Your task to perform on an android device: What's on my calendar tomorrow? Image 0: 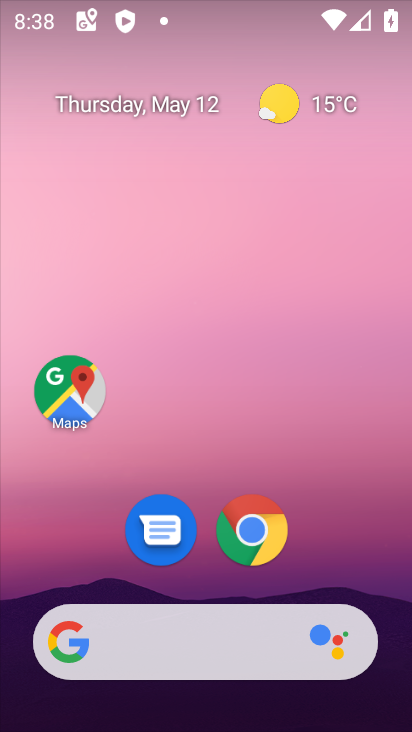
Step 0: drag from (213, 709) to (90, 10)
Your task to perform on an android device: What's on my calendar tomorrow? Image 1: 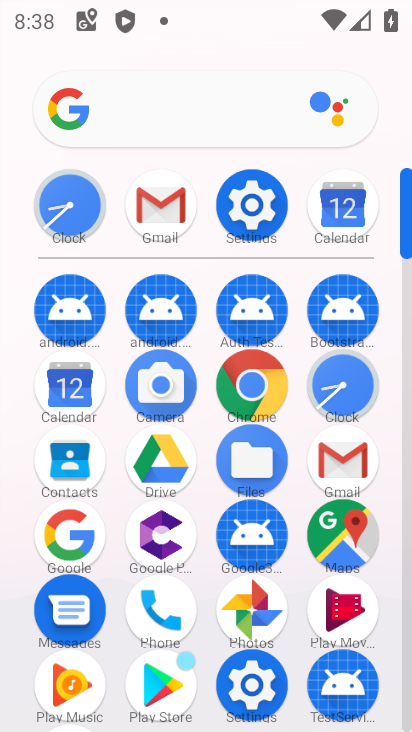
Step 1: click (67, 385)
Your task to perform on an android device: What's on my calendar tomorrow? Image 2: 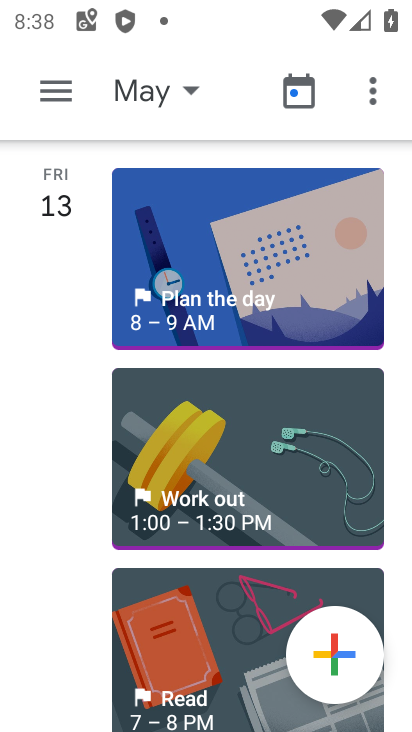
Step 2: task complete